Your task to perform on an android device: toggle airplane mode Image 0: 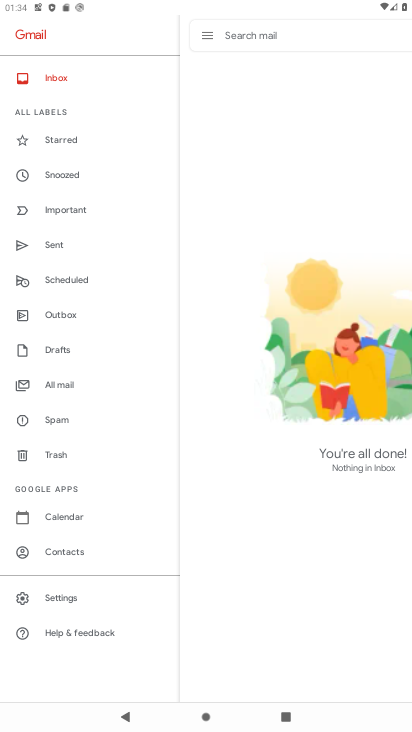
Step 0: press home button
Your task to perform on an android device: toggle airplane mode Image 1: 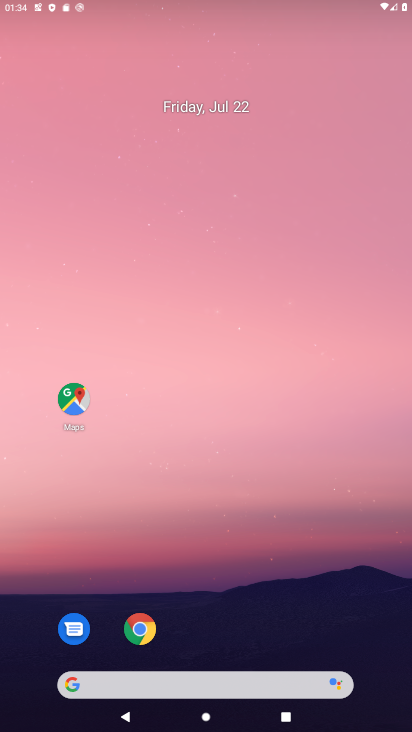
Step 1: drag from (278, 7) to (263, 503)
Your task to perform on an android device: toggle airplane mode Image 2: 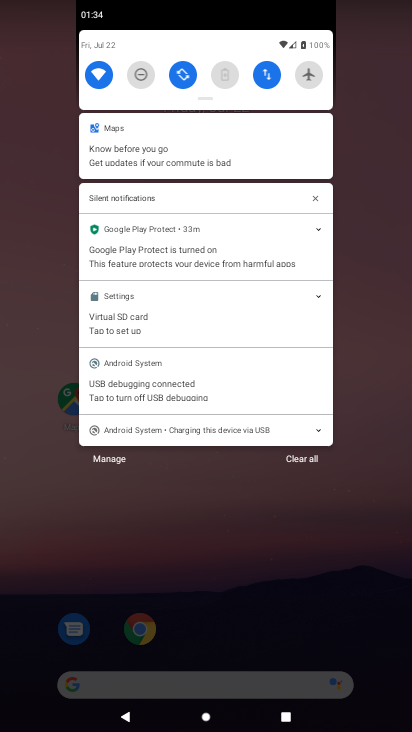
Step 2: click (316, 81)
Your task to perform on an android device: toggle airplane mode Image 3: 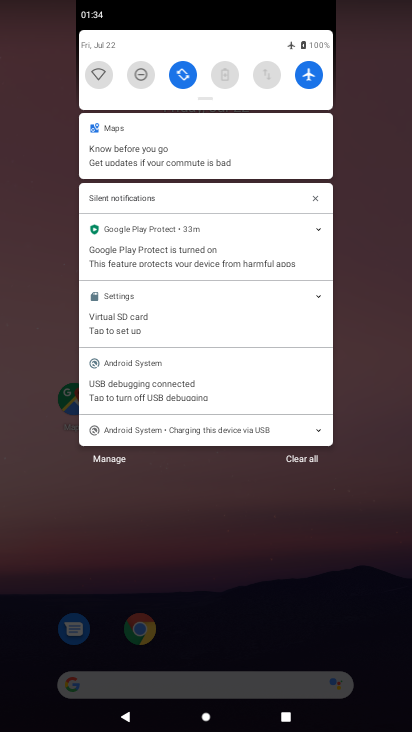
Step 3: task complete